Your task to perform on an android device: Show the shopping cart on walmart. Search for jbl flip 4 on walmart, select the first entry, and add it to the cart. Image 0: 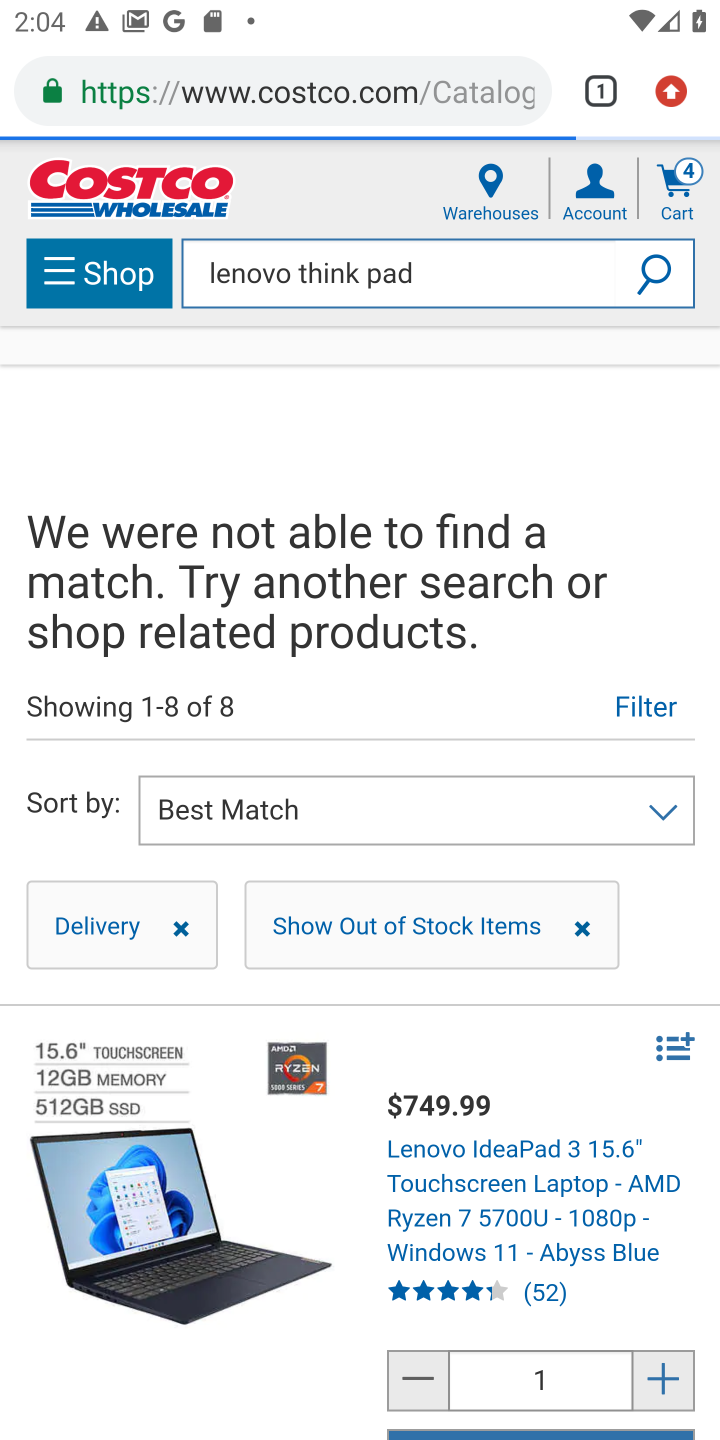
Step 0: press home button
Your task to perform on an android device: Show the shopping cart on walmart. Search for jbl flip 4 on walmart, select the first entry, and add it to the cart. Image 1: 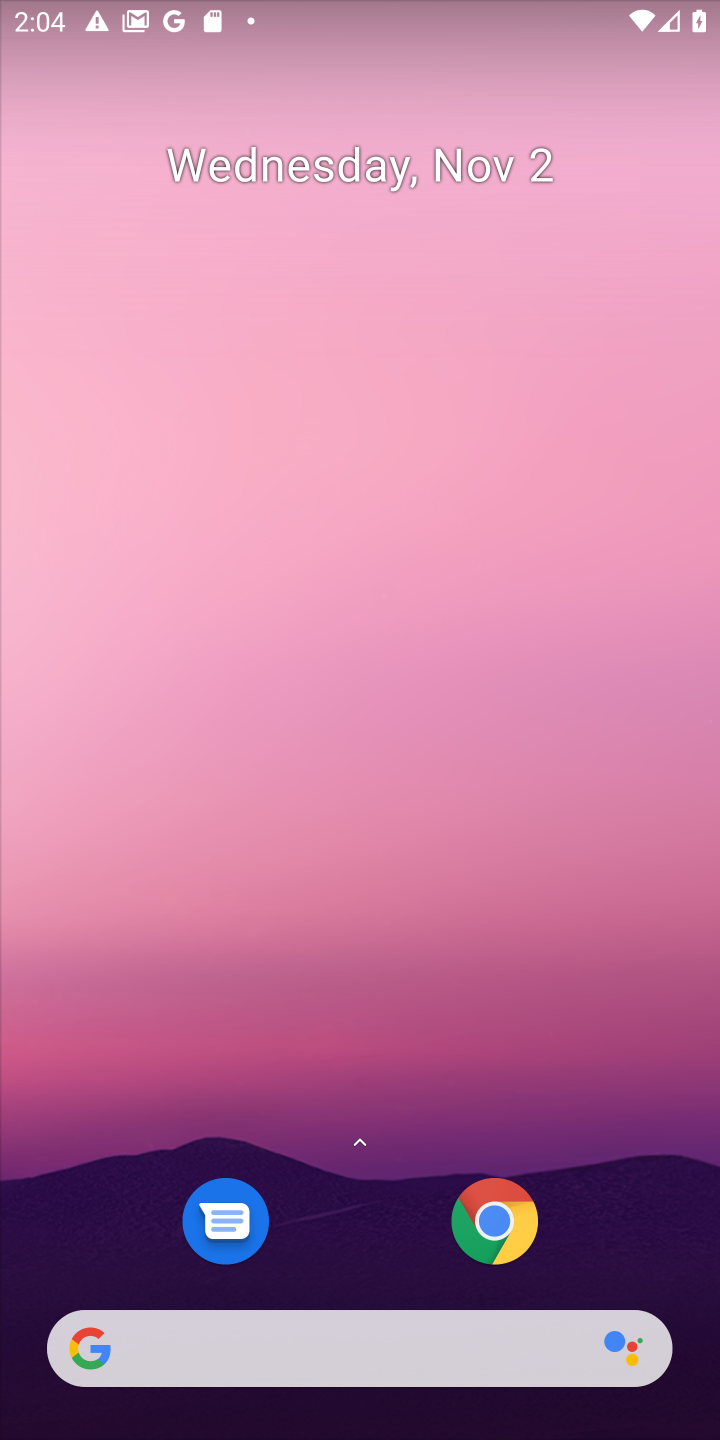
Step 1: click (385, 1361)
Your task to perform on an android device: Show the shopping cart on walmart. Search for jbl flip 4 on walmart, select the first entry, and add it to the cart. Image 2: 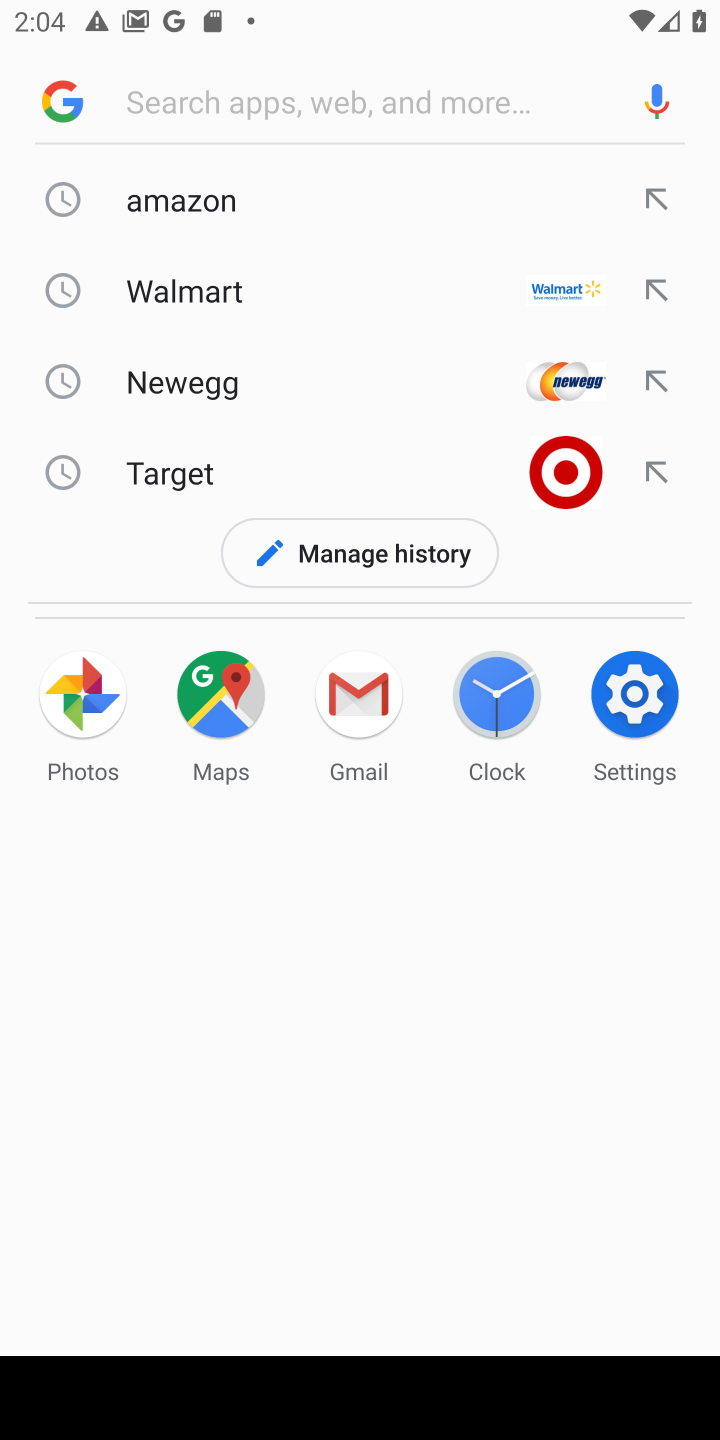
Step 2: type "walmart"
Your task to perform on an android device: Show the shopping cart on walmart. Search for jbl flip 4 on walmart, select the first entry, and add it to the cart. Image 3: 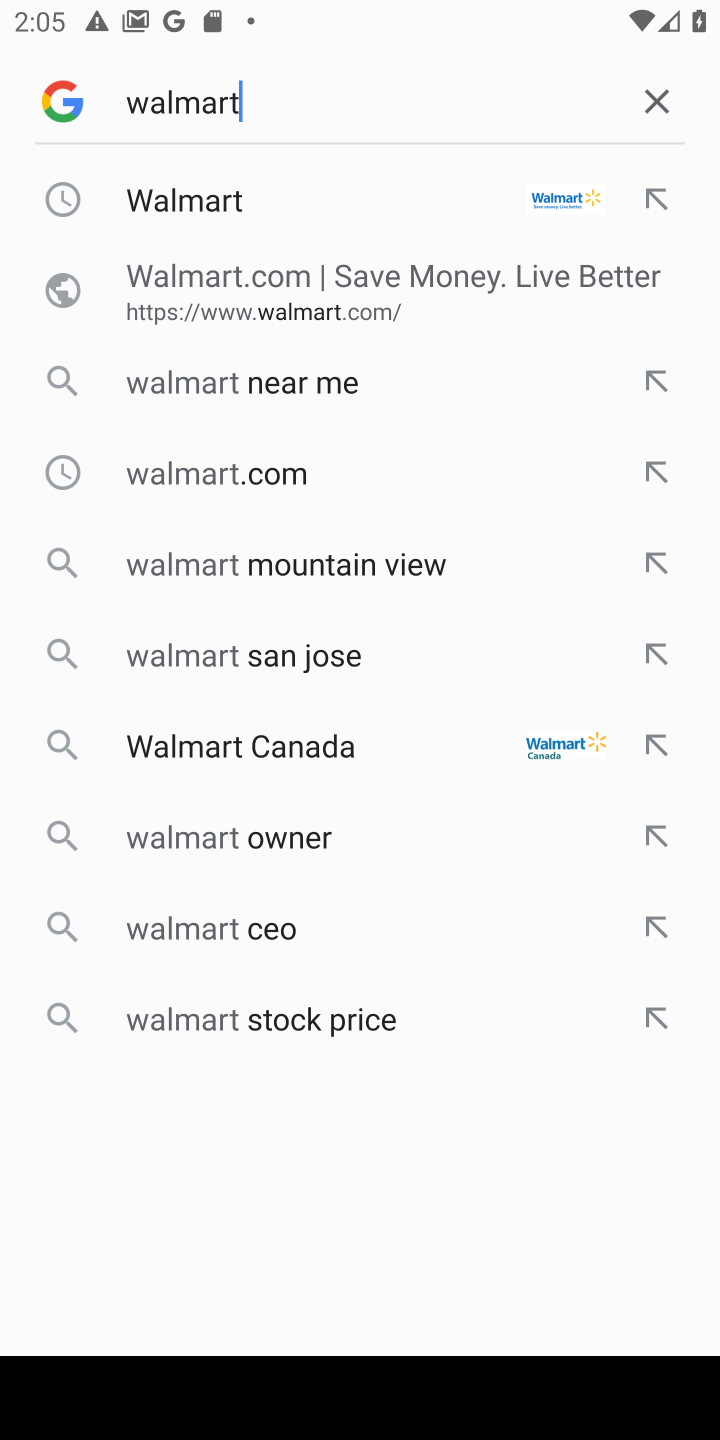
Step 3: click (433, 305)
Your task to perform on an android device: Show the shopping cart on walmart. Search for jbl flip 4 on walmart, select the first entry, and add it to the cart. Image 4: 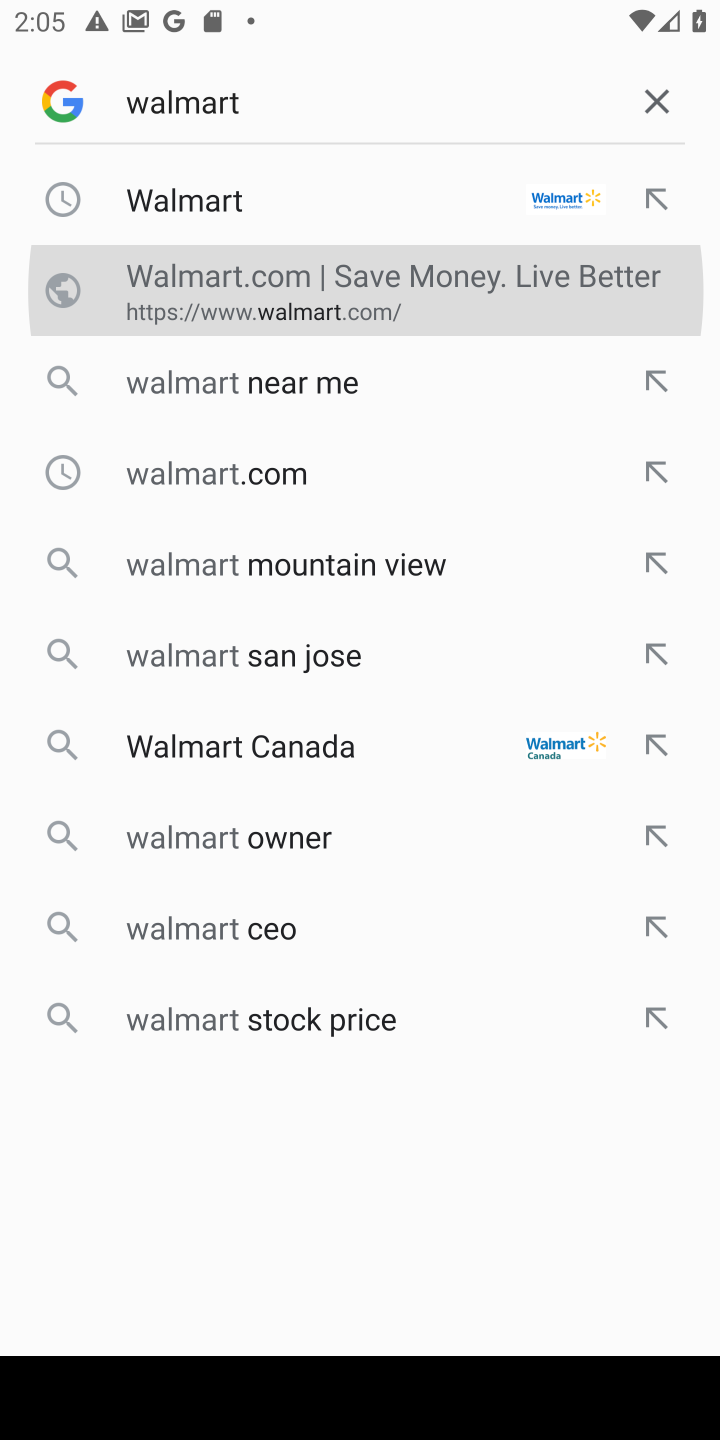
Step 4: click (330, 206)
Your task to perform on an android device: Show the shopping cart on walmart. Search for jbl flip 4 on walmart, select the first entry, and add it to the cart. Image 5: 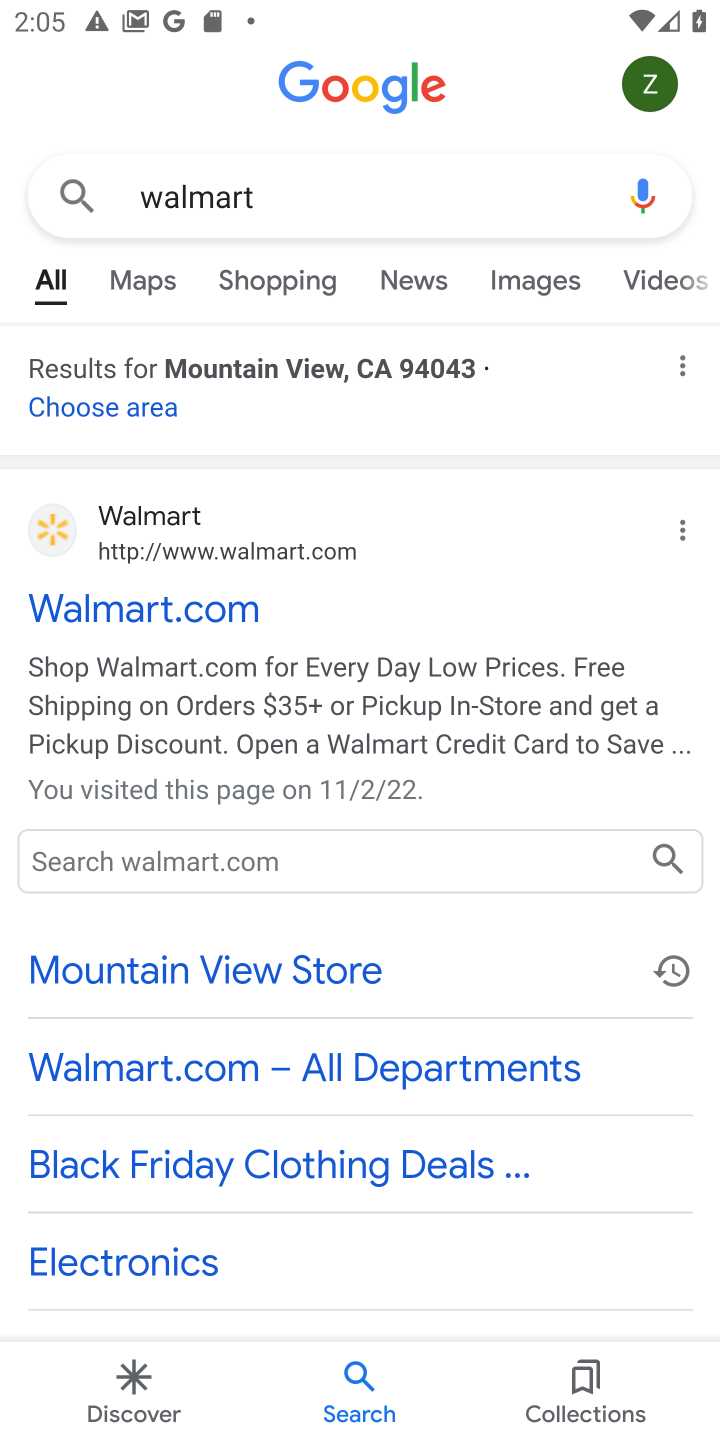
Step 5: click (130, 600)
Your task to perform on an android device: Show the shopping cart on walmart. Search for jbl flip 4 on walmart, select the first entry, and add it to the cart. Image 6: 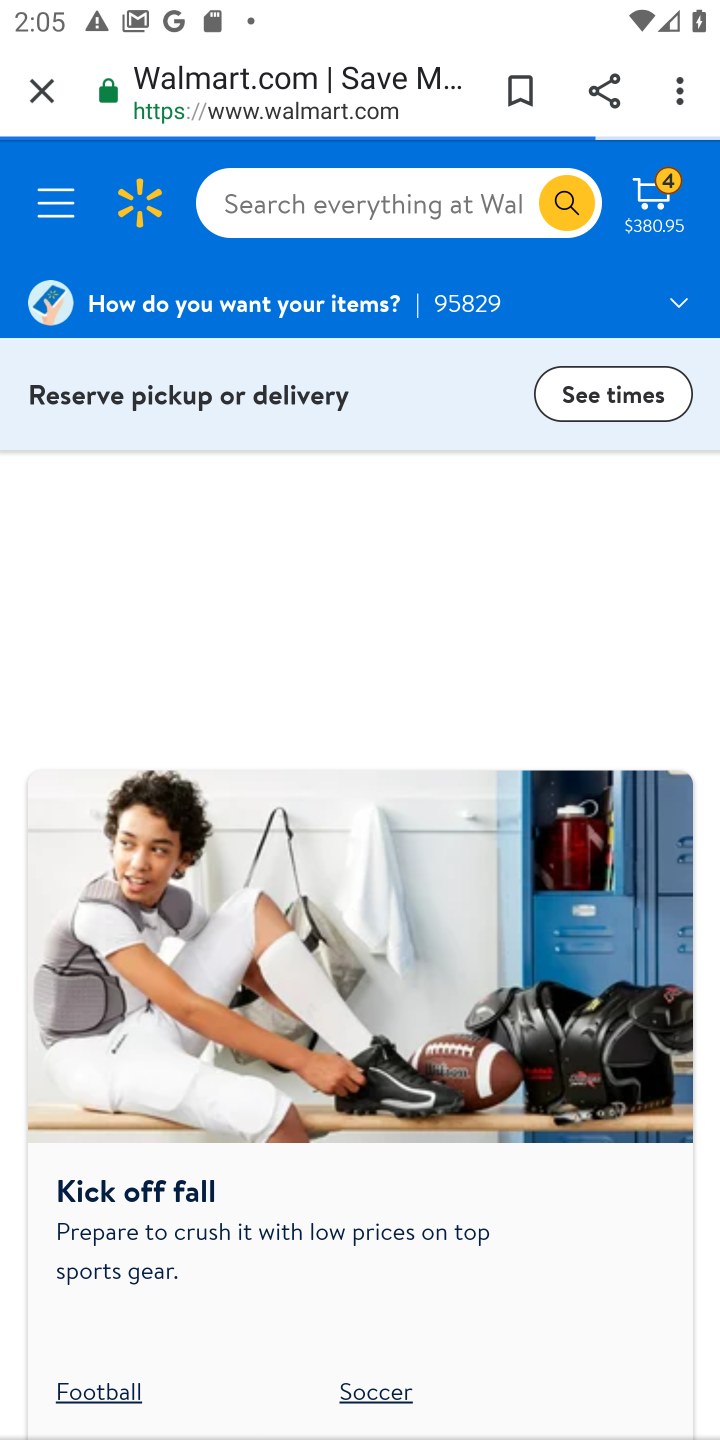
Step 6: click (404, 198)
Your task to perform on an android device: Show the shopping cart on walmart. Search for jbl flip 4 on walmart, select the first entry, and add it to the cart. Image 7: 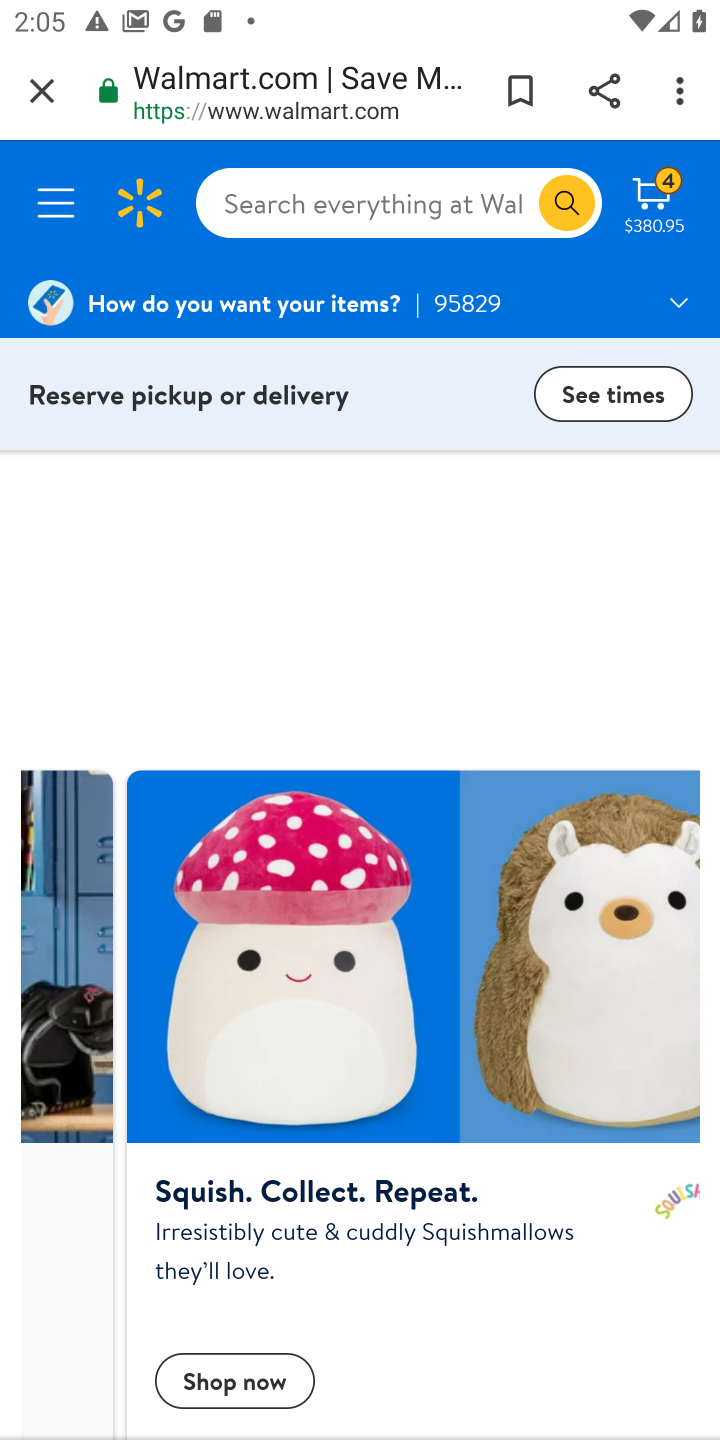
Step 7: type ""
Your task to perform on an android device: Show the shopping cart on walmart. Search for jbl flip 4 on walmart, select the first entry, and add it to the cart. Image 8: 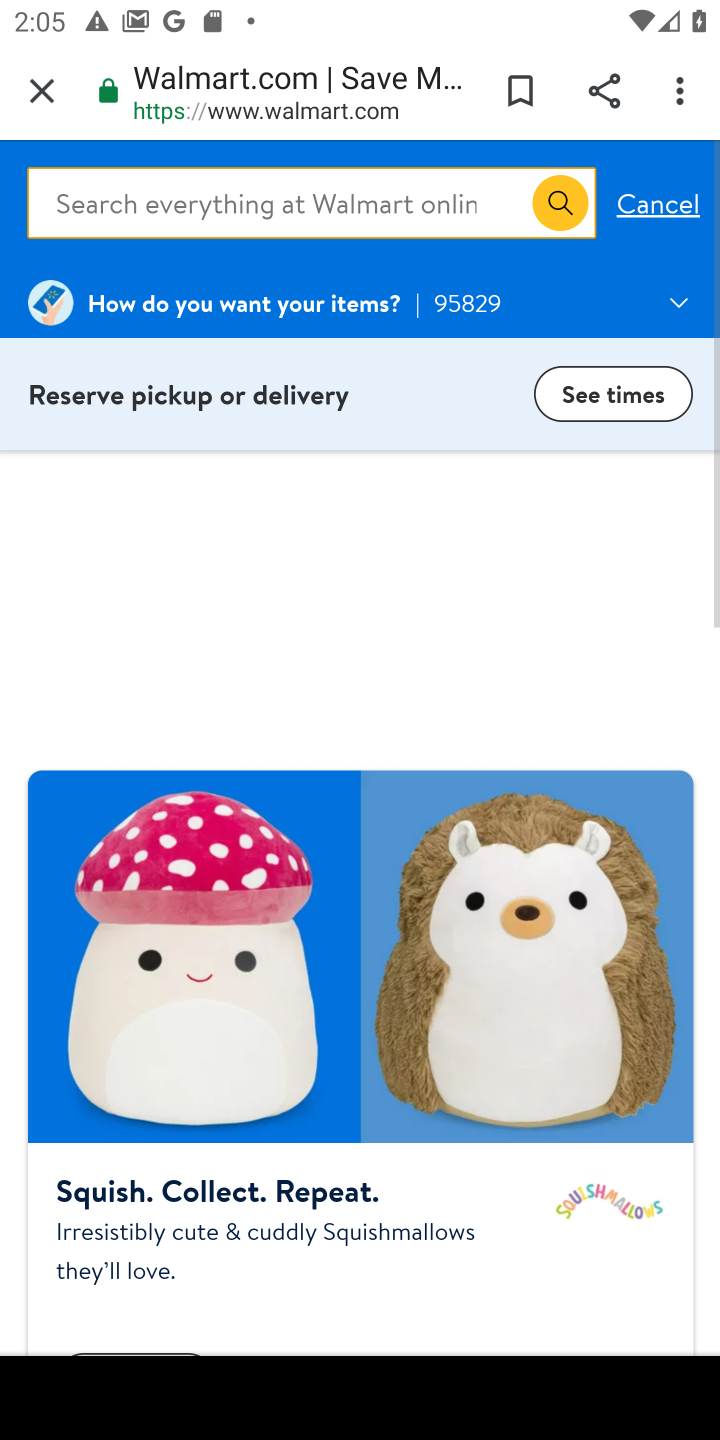
Step 8: click (417, 202)
Your task to perform on an android device: Show the shopping cart on walmart. Search for jbl flip 4 on walmart, select the first entry, and add it to the cart. Image 9: 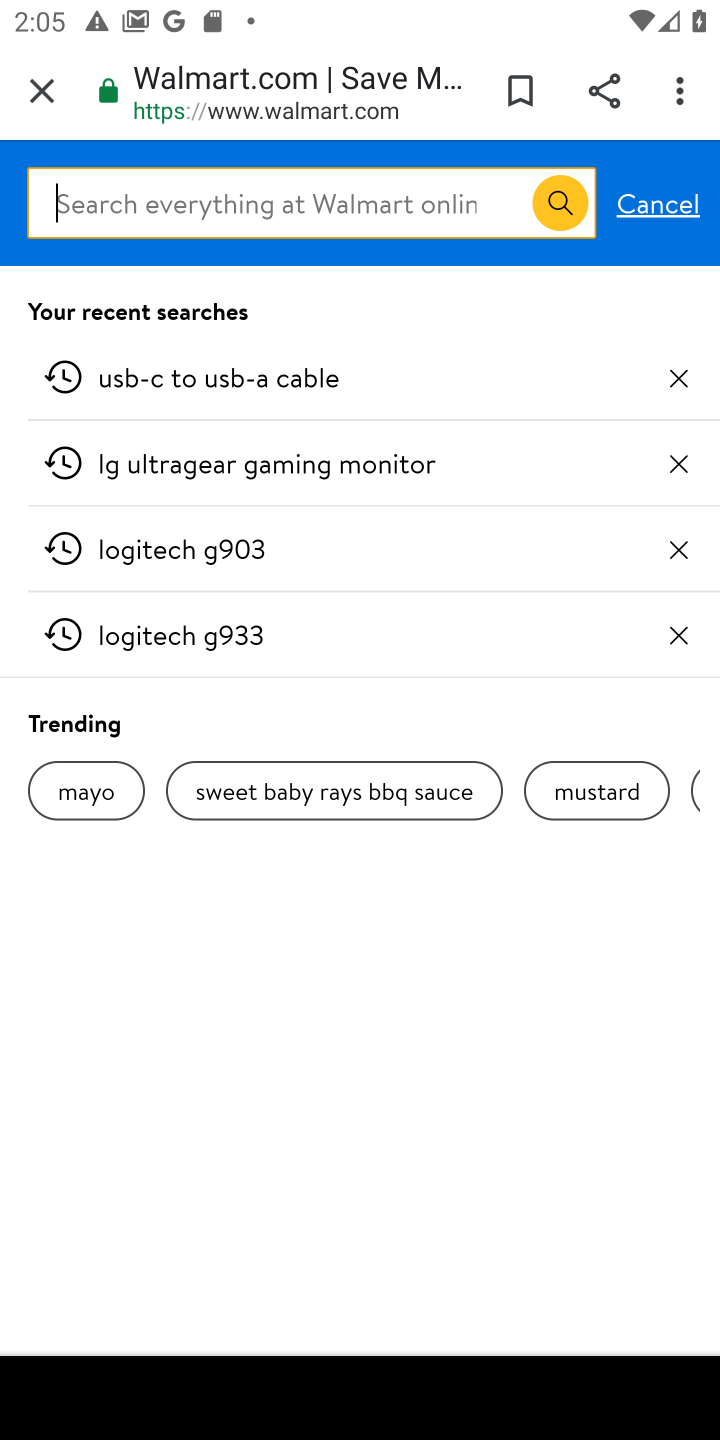
Step 9: type "jbl flip 4"
Your task to perform on an android device: Show the shopping cart on walmart. Search for jbl flip 4 on walmart, select the first entry, and add it to the cart. Image 10: 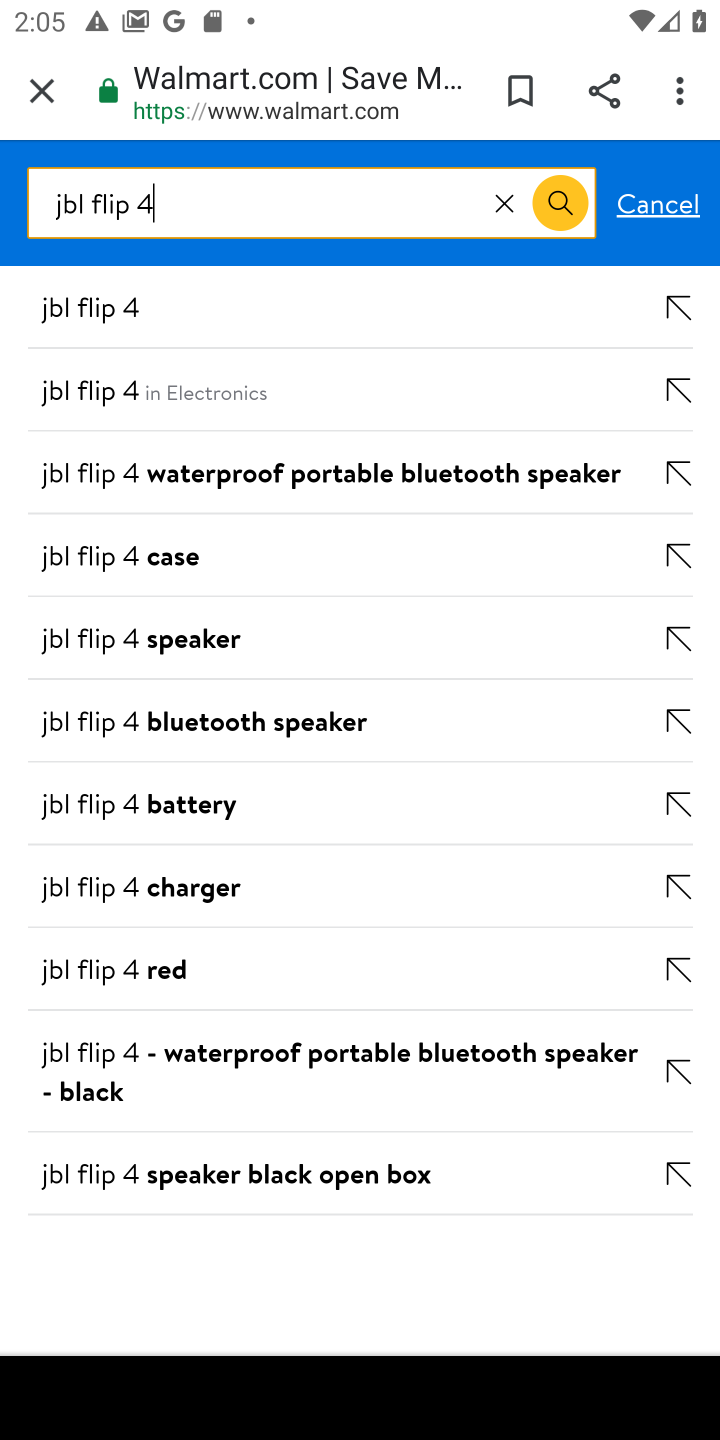
Step 10: click (666, 299)
Your task to perform on an android device: Show the shopping cart on walmart. Search for jbl flip 4 on walmart, select the first entry, and add it to the cart. Image 11: 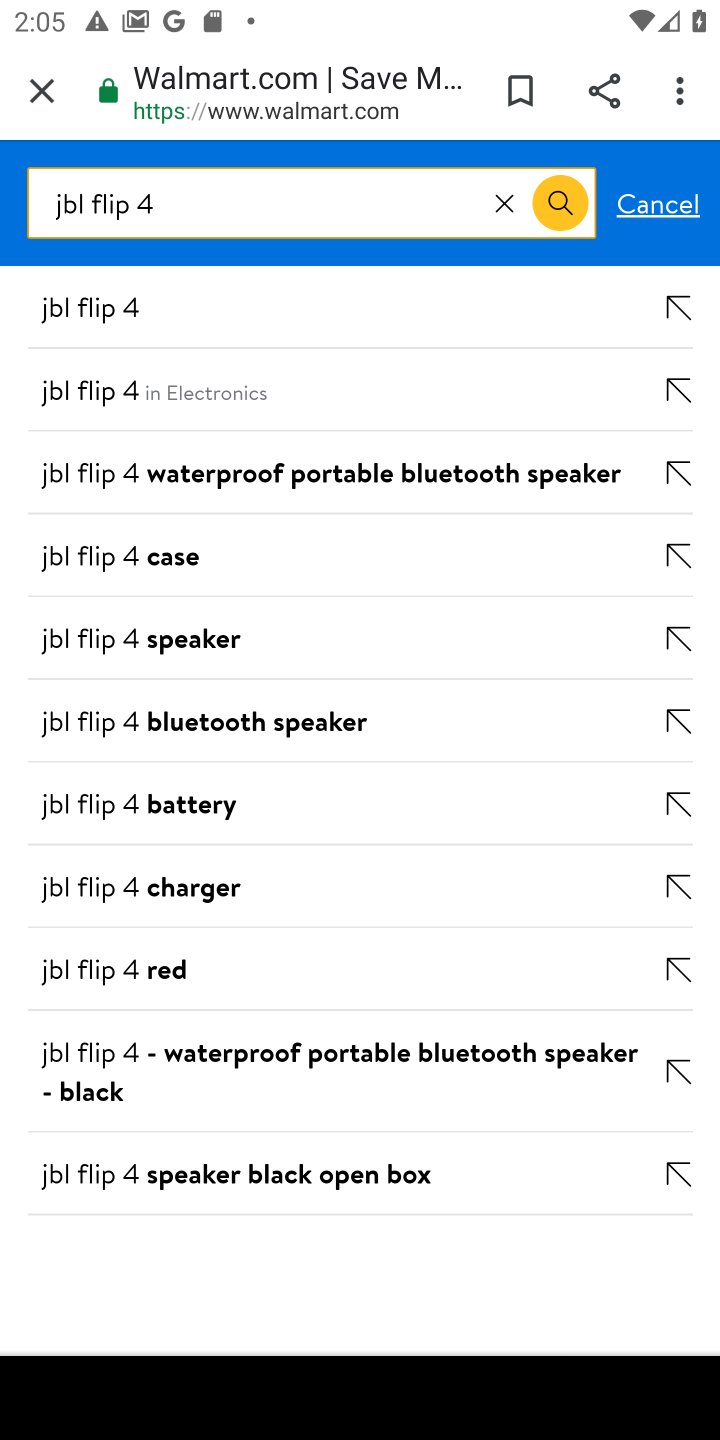
Step 11: click (546, 206)
Your task to perform on an android device: Show the shopping cart on walmart. Search for jbl flip 4 on walmart, select the first entry, and add it to the cart. Image 12: 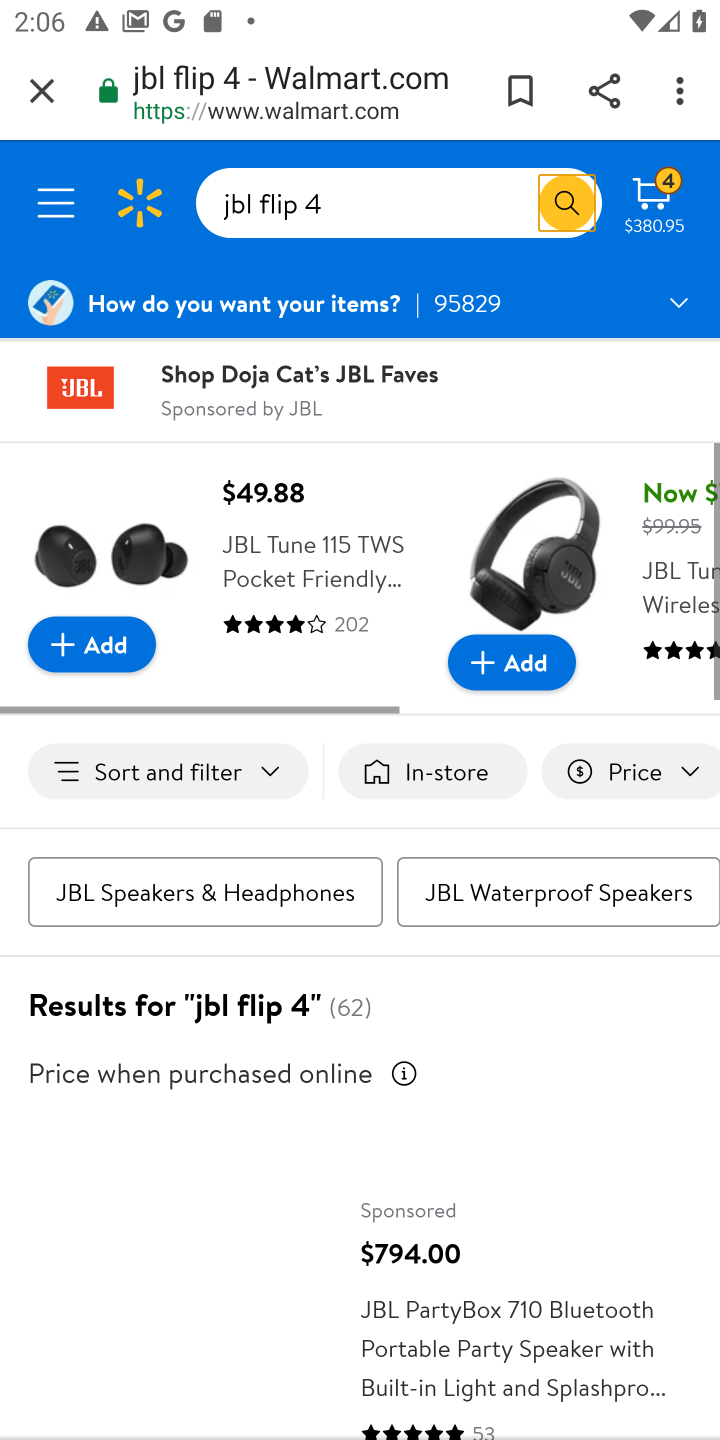
Step 12: drag from (557, 1240) to (504, 673)
Your task to perform on an android device: Show the shopping cart on walmart. Search for jbl flip 4 on walmart, select the first entry, and add it to the cart. Image 13: 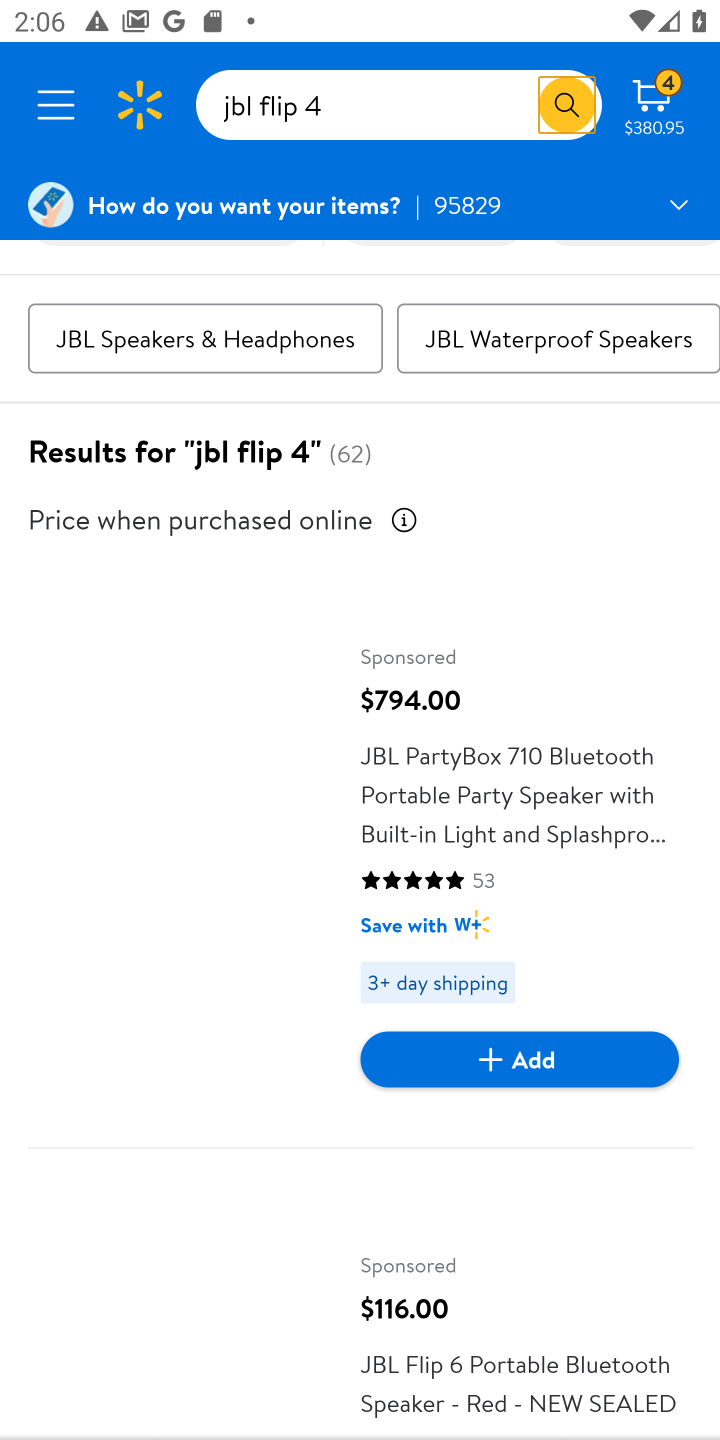
Step 13: click (594, 1041)
Your task to perform on an android device: Show the shopping cart on walmart. Search for jbl flip 4 on walmart, select the first entry, and add it to the cart. Image 14: 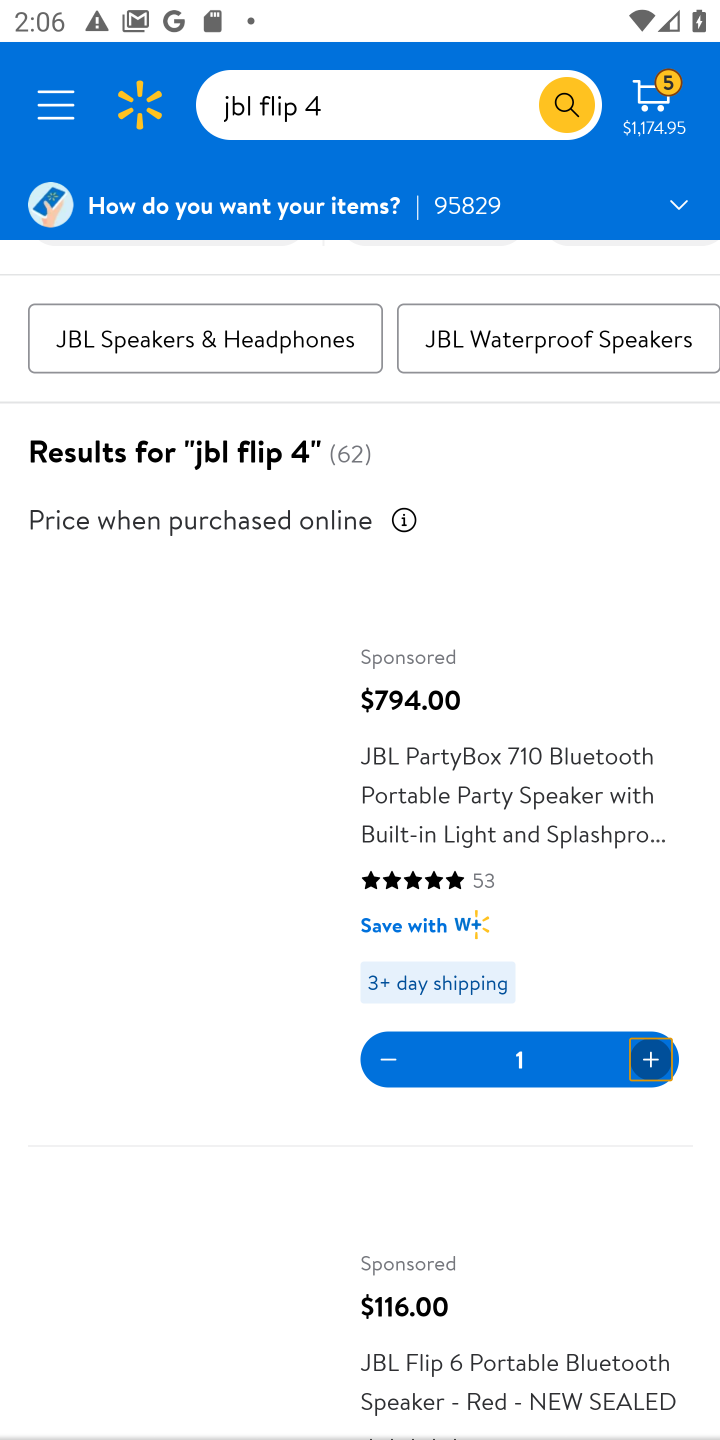
Step 14: task complete